Your task to perform on an android device: turn pop-ups off in chrome Image 0: 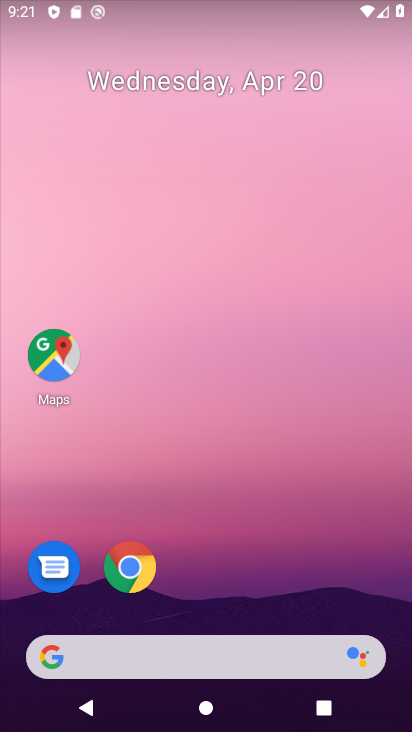
Step 0: drag from (303, 594) to (344, 176)
Your task to perform on an android device: turn pop-ups off in chrome Image 1: 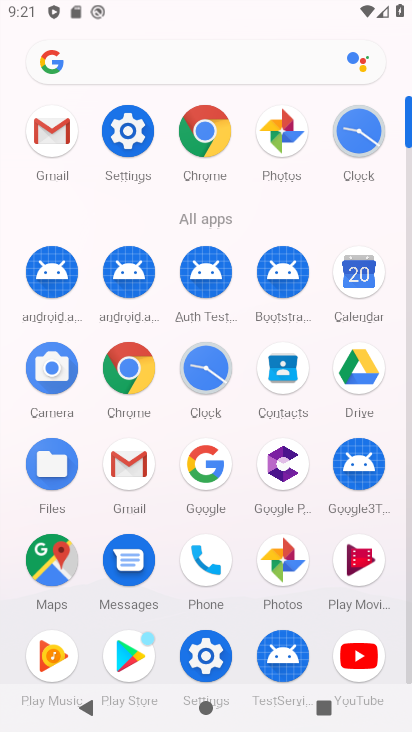
Step 1: click (142, 377)
Your task to perform on an android device: turn pop-ups off in chrome Image 2: 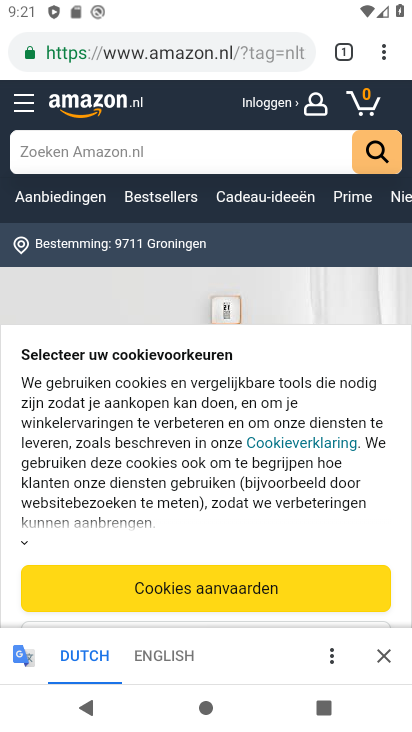
Step 2: click (385, 56)
Your task to perform on an android device: turn pop-ups off in chrome Image 3: 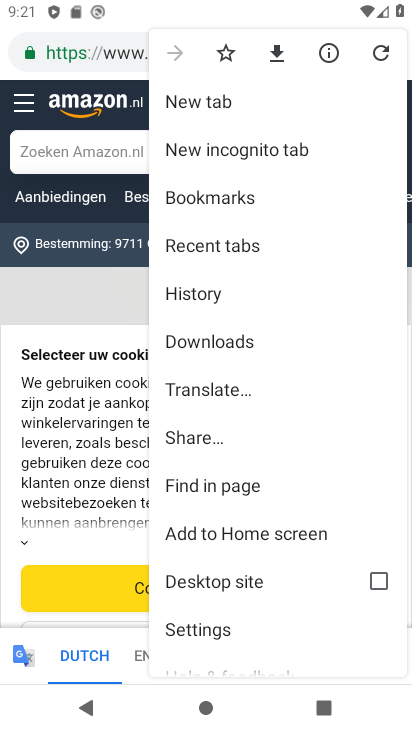
Step 3: drag from (327, 585) to (354, 413)
Your task to perform on an android device: turn pop-ups off in chrome Image 4: 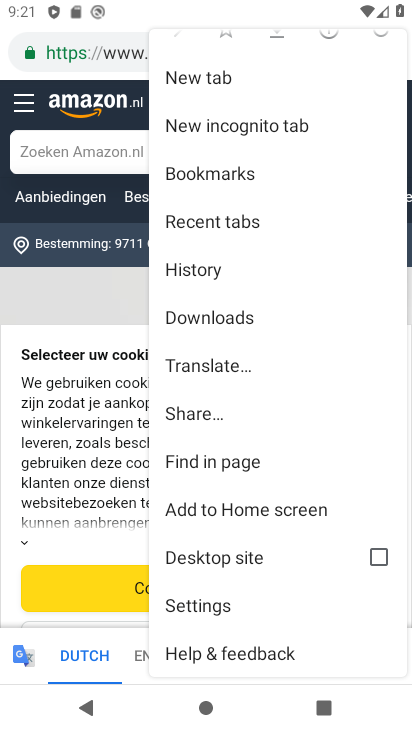
Step 4: click (218, 612)
Your task to perform on an android device: turn pop-ups off in chrome Image 5: 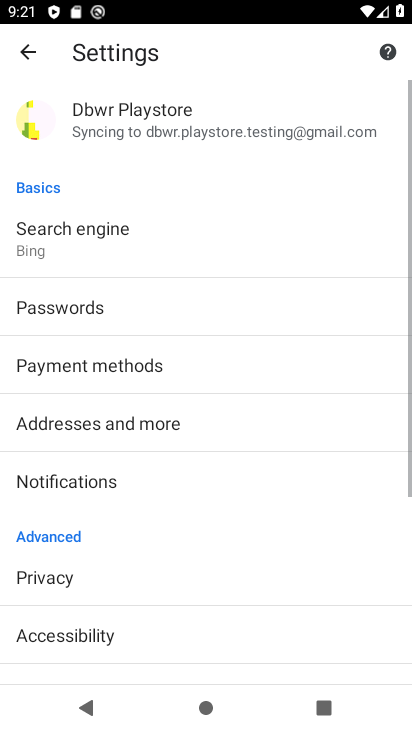
Step 5: drag from (302, 611) to (324, 484)
Your task to perform on an android device: turn pop-ups off in chrome Image 6: 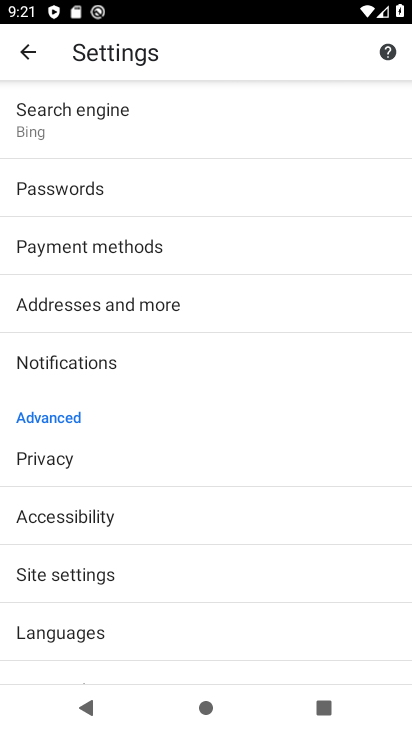
Step 6: drag from (329, 617) to (333, 475)
Your task to perform on an android device: turn pop-ups off in chrome Image 7: 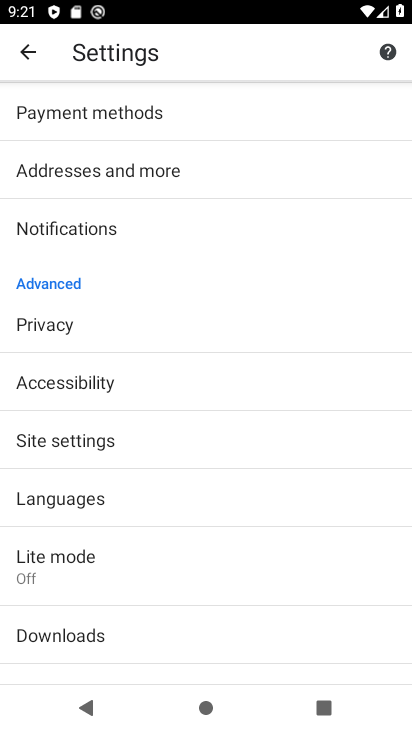
Step 7: drag from (324, 628) to (333, 504)
Your task to perform on an android device: turn pop-ups off in chrome Image 8: 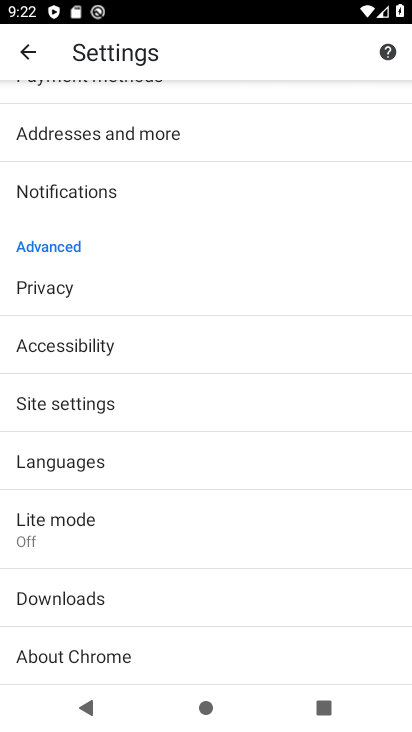
Step 8: click (210, 409)
Your task to perform on an android device: turn pop-ups off in chrome Image 9: 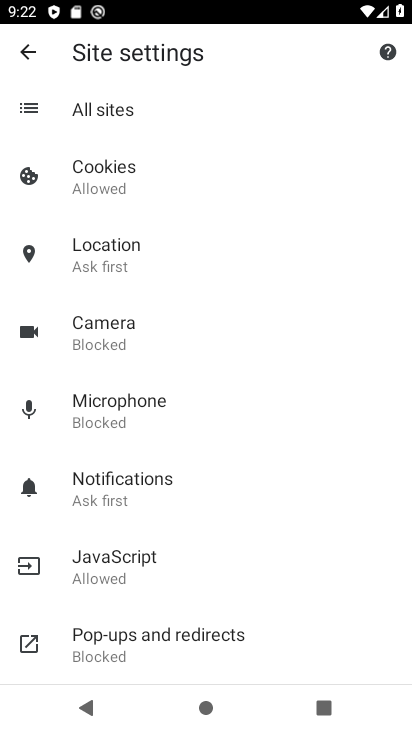
Step 9: drag from (315, 335) to (308, 485)
Your task to perform on an android device: turn pop-ups off in chrome Image 10: 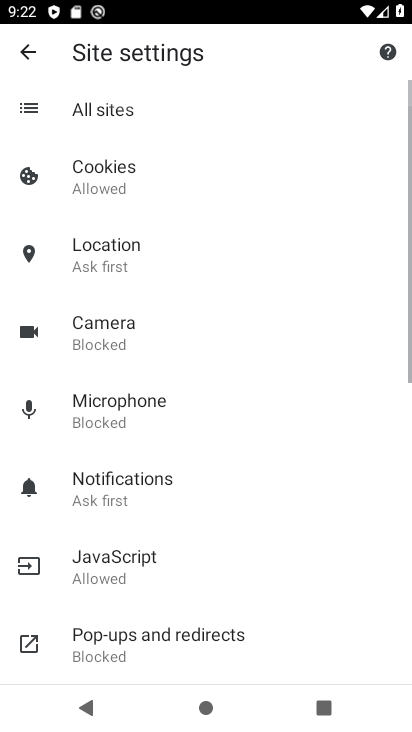
Step 10: drag from (311, 488) to (321, 414)
Your task to perform on an android device: turn pop-ups off in chrome Image 11: 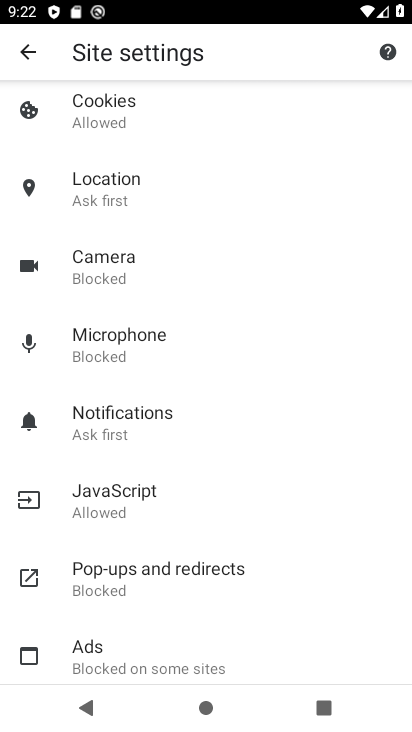
Step 11: drag from (331, 573) to (345, 423)
Your task to perform on an android device: turn pop-ups off in chrome Image 12: 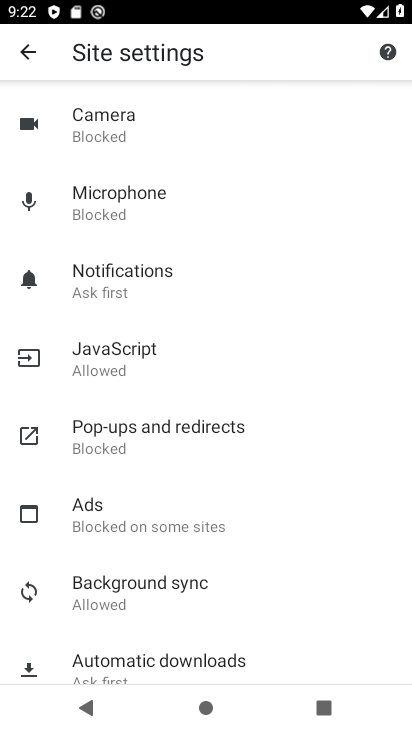
Step 12: drag from (328, 562) to (336, 437)
Your task to perform on an android device: turn pop-ups off in chrome Image 13: 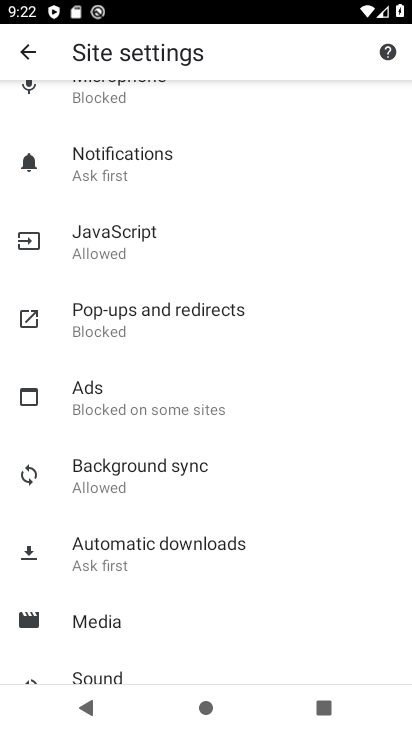
Step 13: drag from (331, 573) to (339, 473)
Your task to perform on an android device: turn pop-ups off in chrome Image 14: 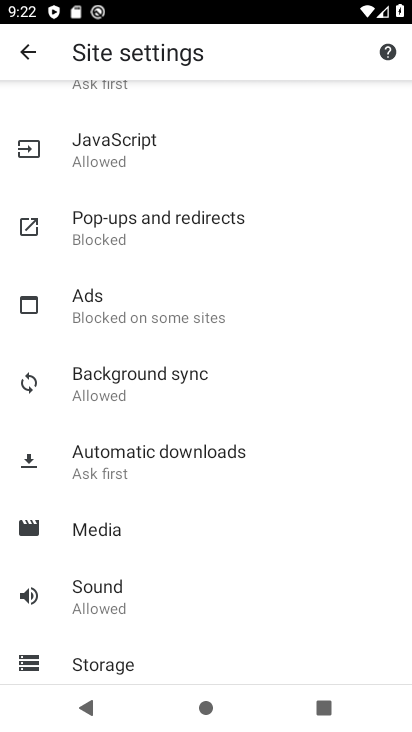
Step 14: click (197, 229)
Your task to perform on an android device: turn pop-ups off in chrome Image 15: 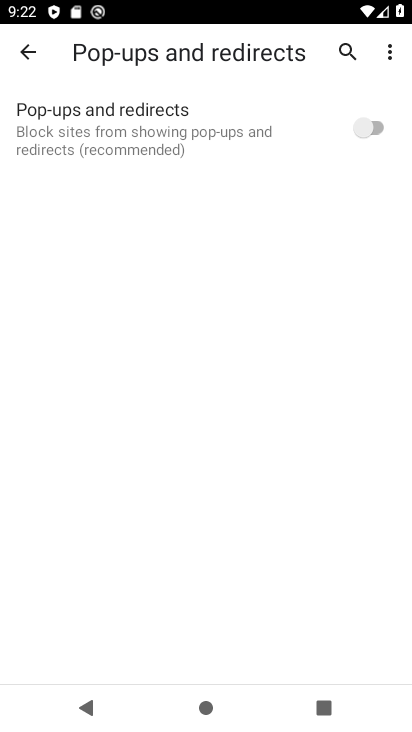
Step 15: task complete